Your task to perform on an android device: check battery use Image 0: 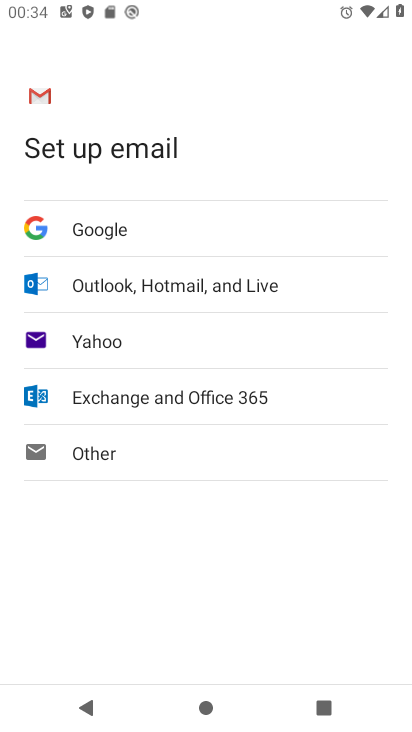
Step 0: press home button
Your task to perform on an android device: check battery use Image 1: 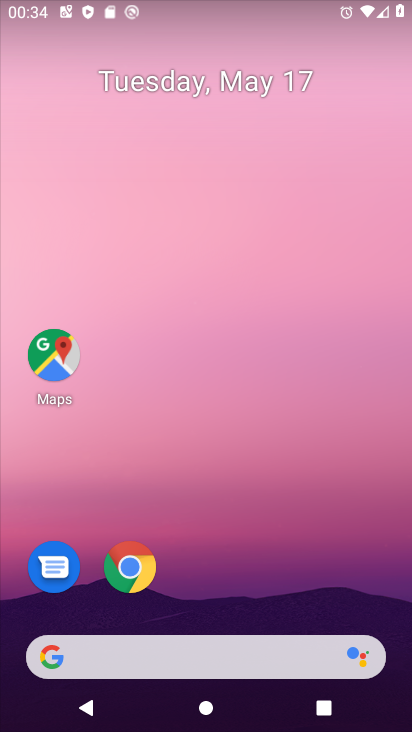
Step 1: drag from (294, 471) to (225, 30)
Your task to perform on an android device: check battery use Image 2: 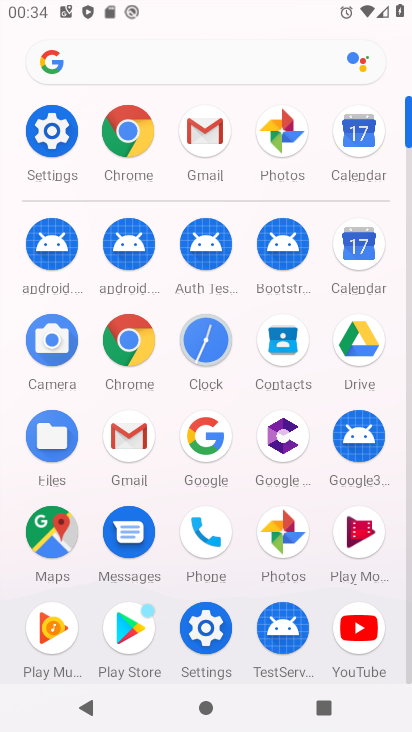
Step 2: click (46, 123)
Your task to perform on an android device: check battery use Image 3: 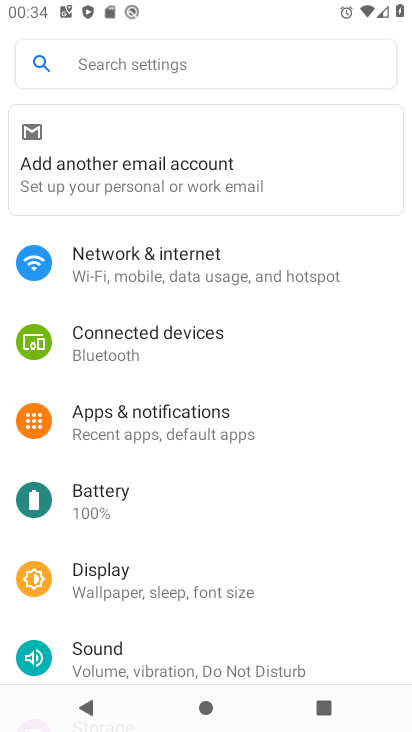
Step 3: click (106, 493)
Your task to perform on an android device: check battery use Image 4: 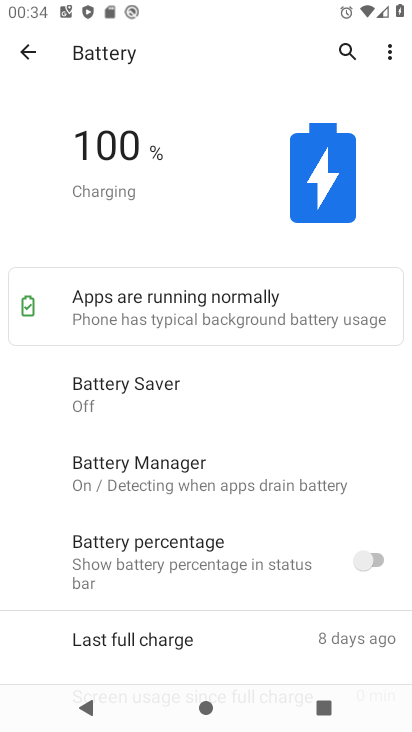
Step 4: task complete